Your task to perform on an android device: find which apps use the phone's location Image 0: 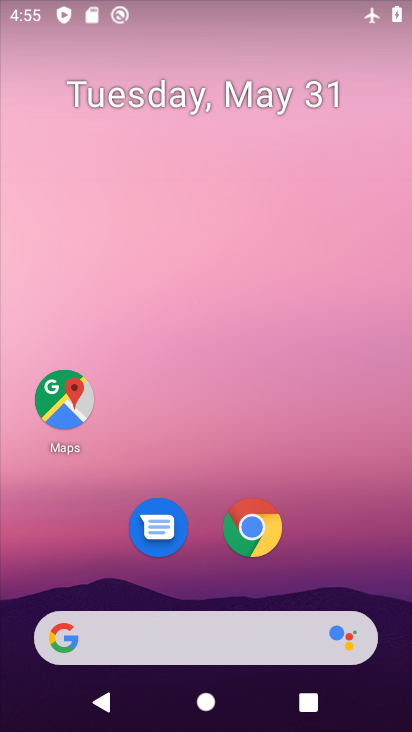
Step 0: drag from (302, 560) to (346, 87)
Your task to perform on an android device: find which apps use the phone's location Image 1: 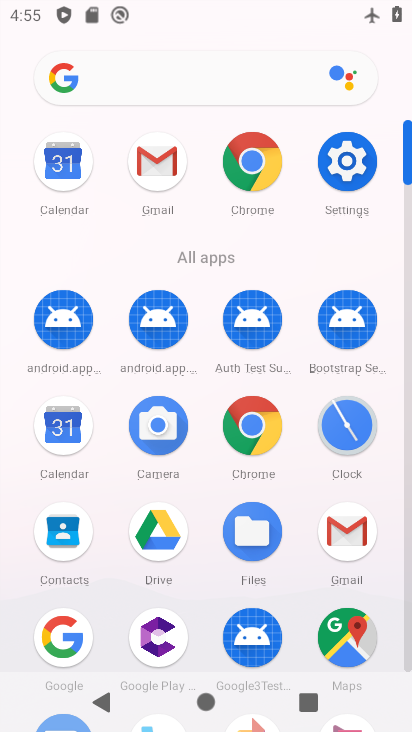
Step 1: drag from (200, 617) to (243, 202)
Your task to perform on an android device: find which apps use the phone's location Image 2: 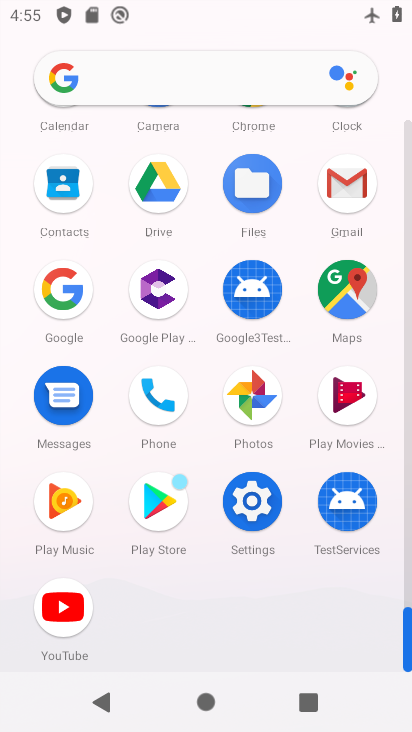
Step 2: click (157, 398)
Your task to perform on an android device: find which apps use the phone's location Image 3: 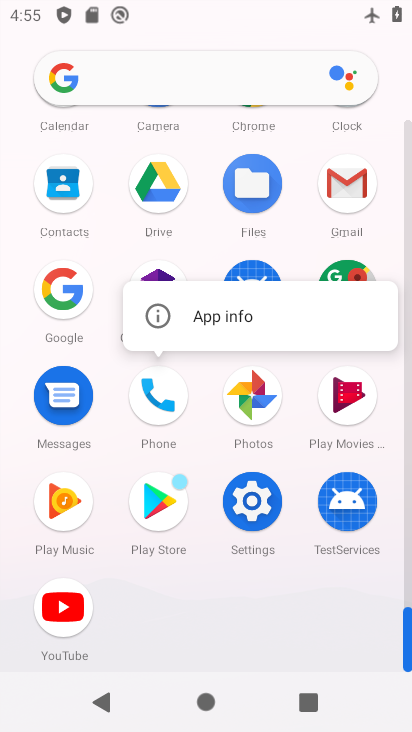
Step 3: click (215, 321)
Your task to perform on an android device: find which apps use the phone's location Image 4: 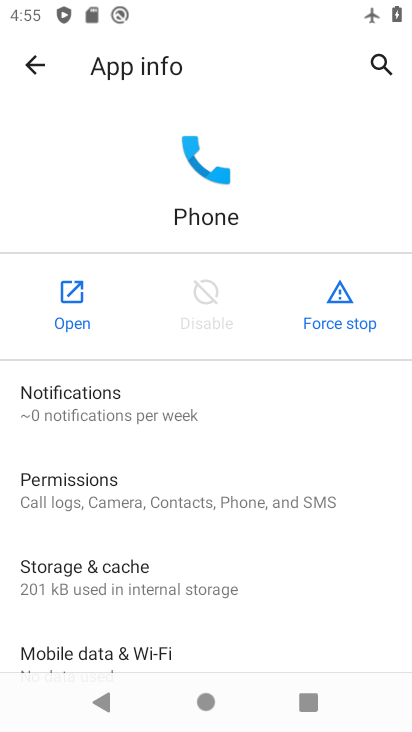
Step 4: drag from (211, 499) to (264, 81)
Your task to perform on an android device: find which apps use the phone's location Image 5: 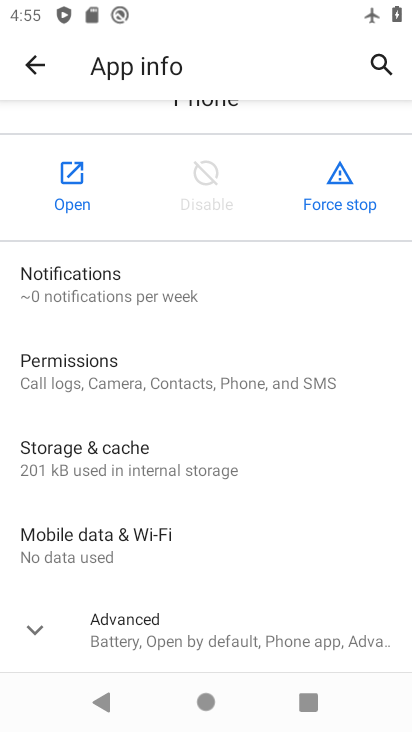
Step 5: click (98, 378)
Your task to perform on an android device: find which apps use the phone's location Image 6: 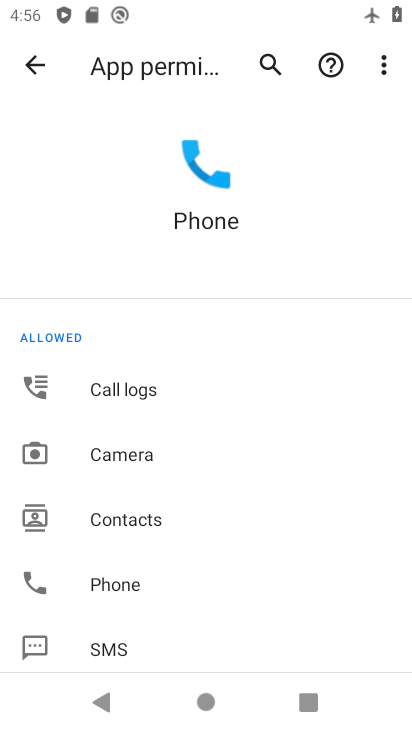
Step 6: drag from (173, 595) to (180, 342)
Your task to perform on an android device: find which apps use the phone's location Image 7: 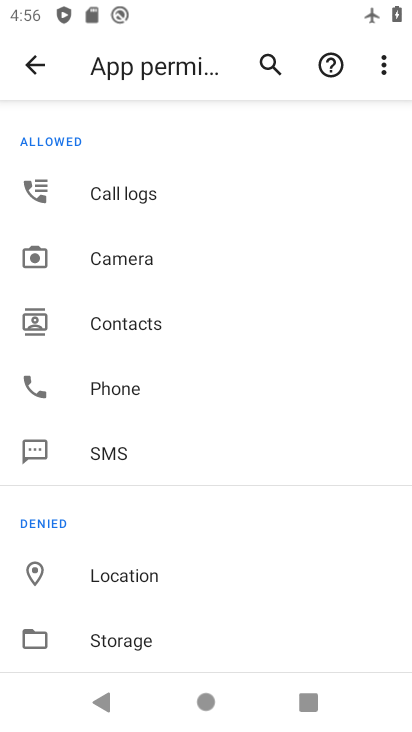
Step 7: click (97, 571)
Your task to perform on an android device: find which apps use the phone's location Image 8: 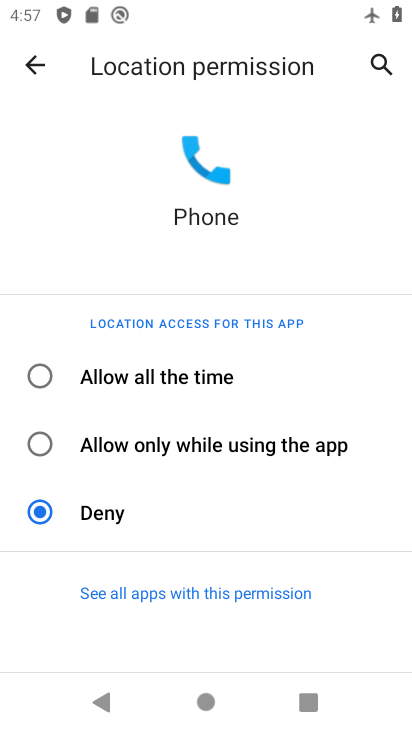
Step 8: task complete